Your task to perform on an android device: open app "Google Sheets" Image 0: 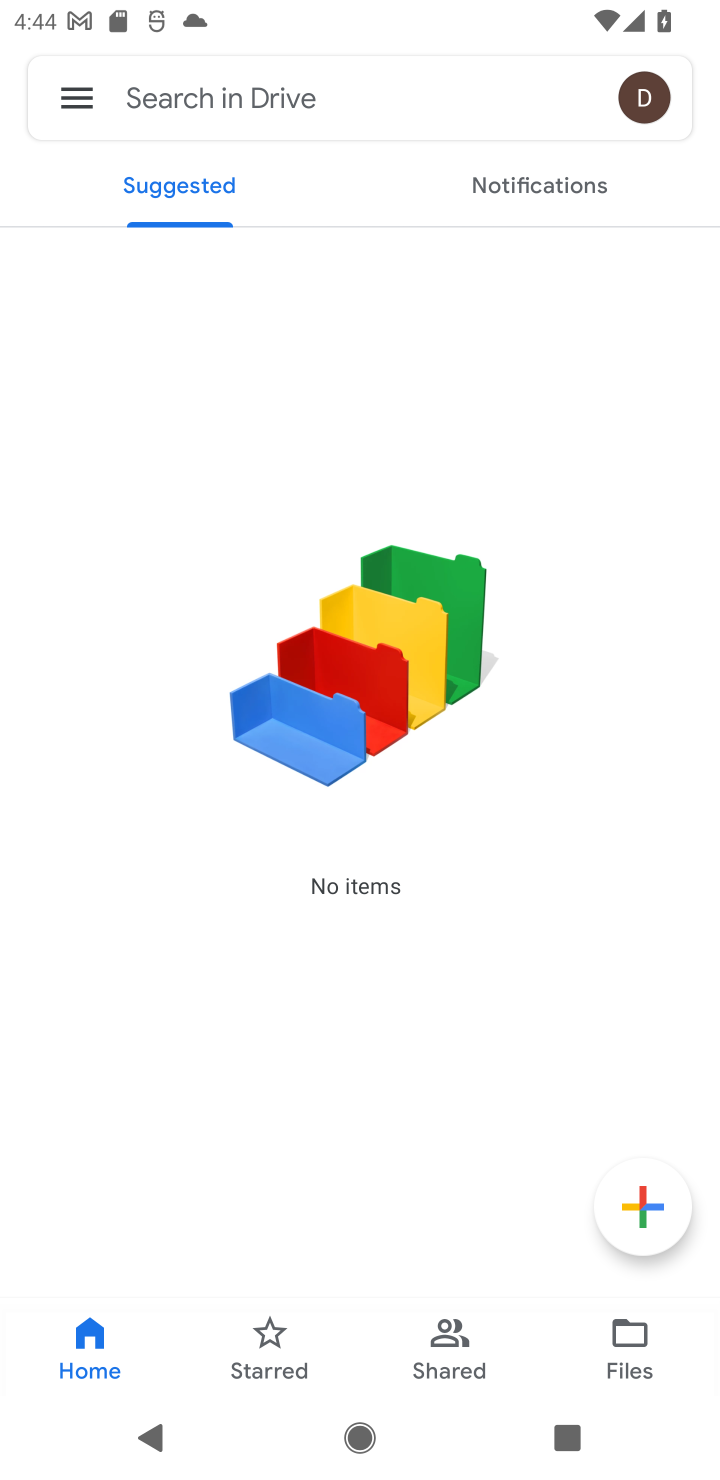
Step 0: press home button
Your task to perform on an android device: open app "Google Sheets" Image 1: 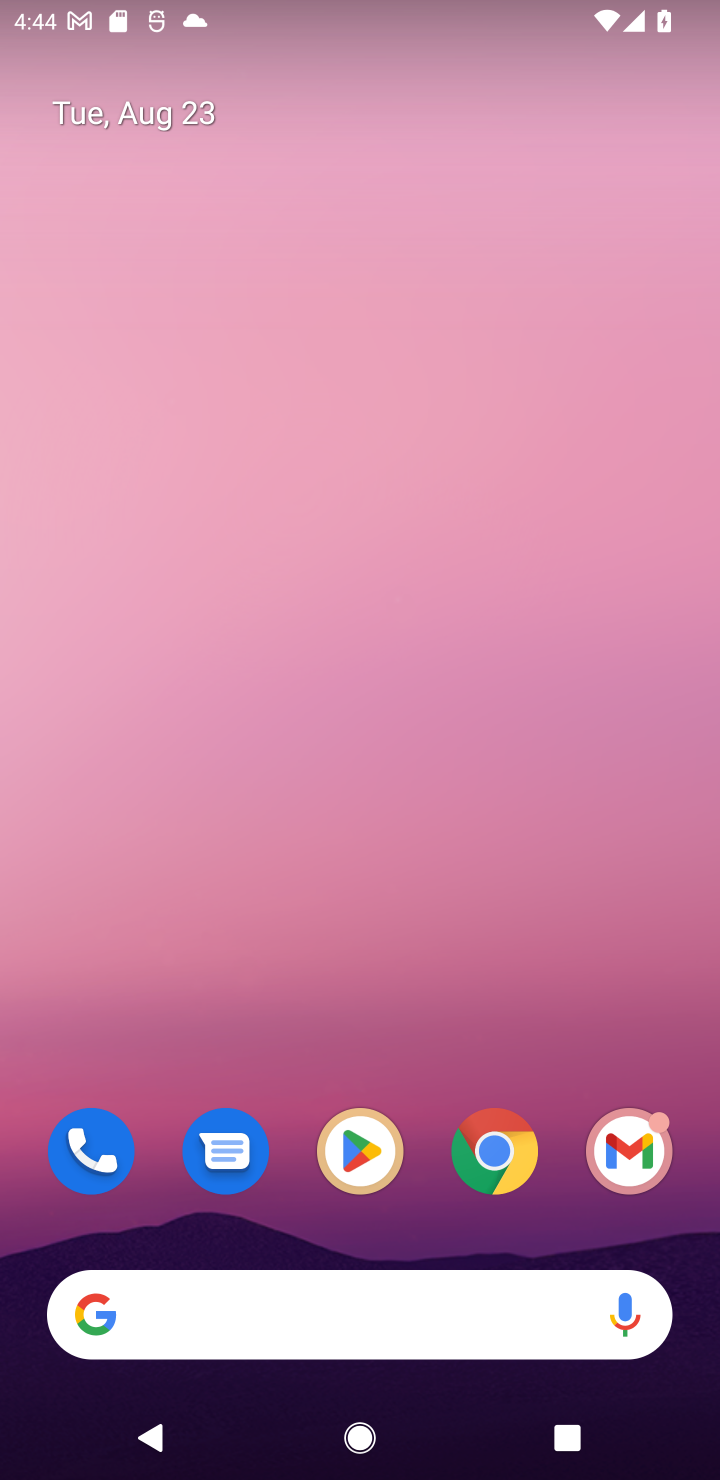
Step 1: click (362, 1156)
Your task to perform on an android device: open app "Google Sheets" Image 2: 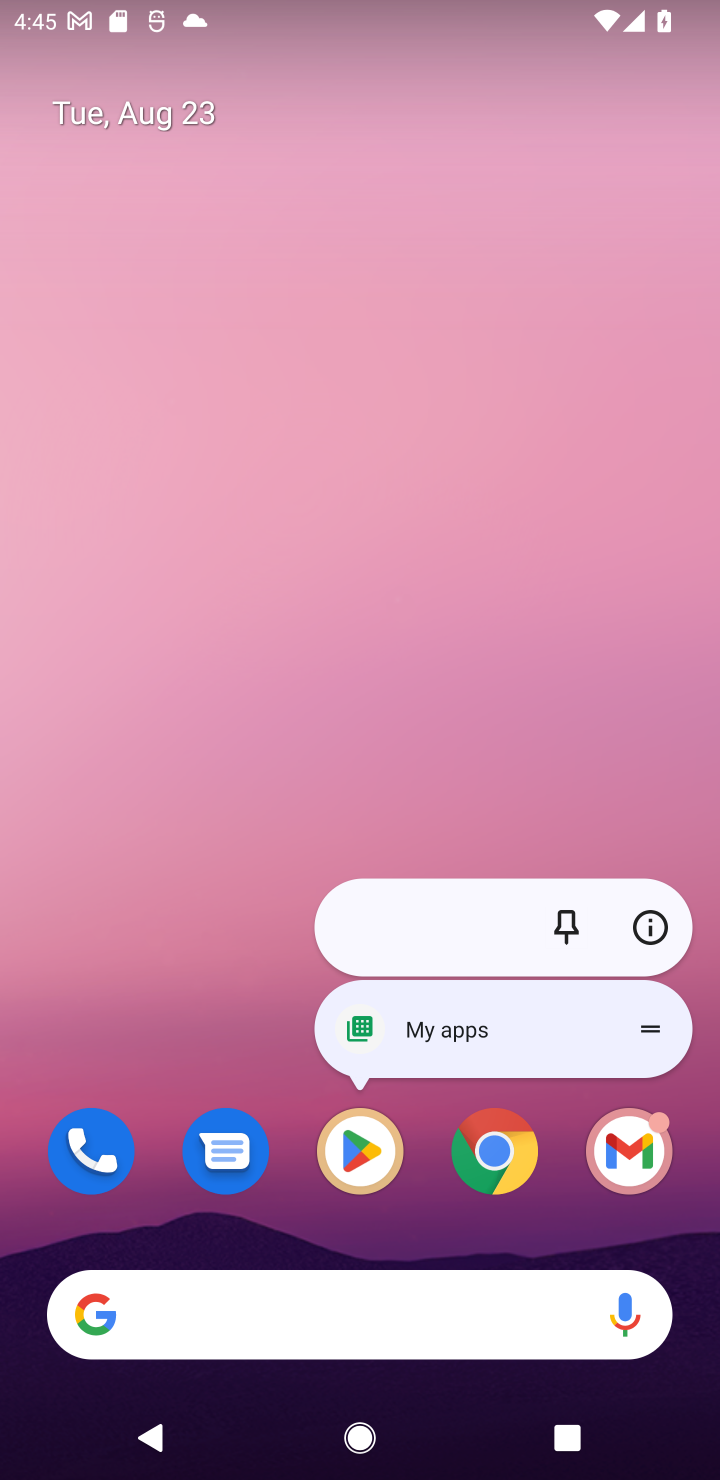
Step 2: click (362, 1163)
Your task to perform on an android device: open app "Google Sheets" Image 3: 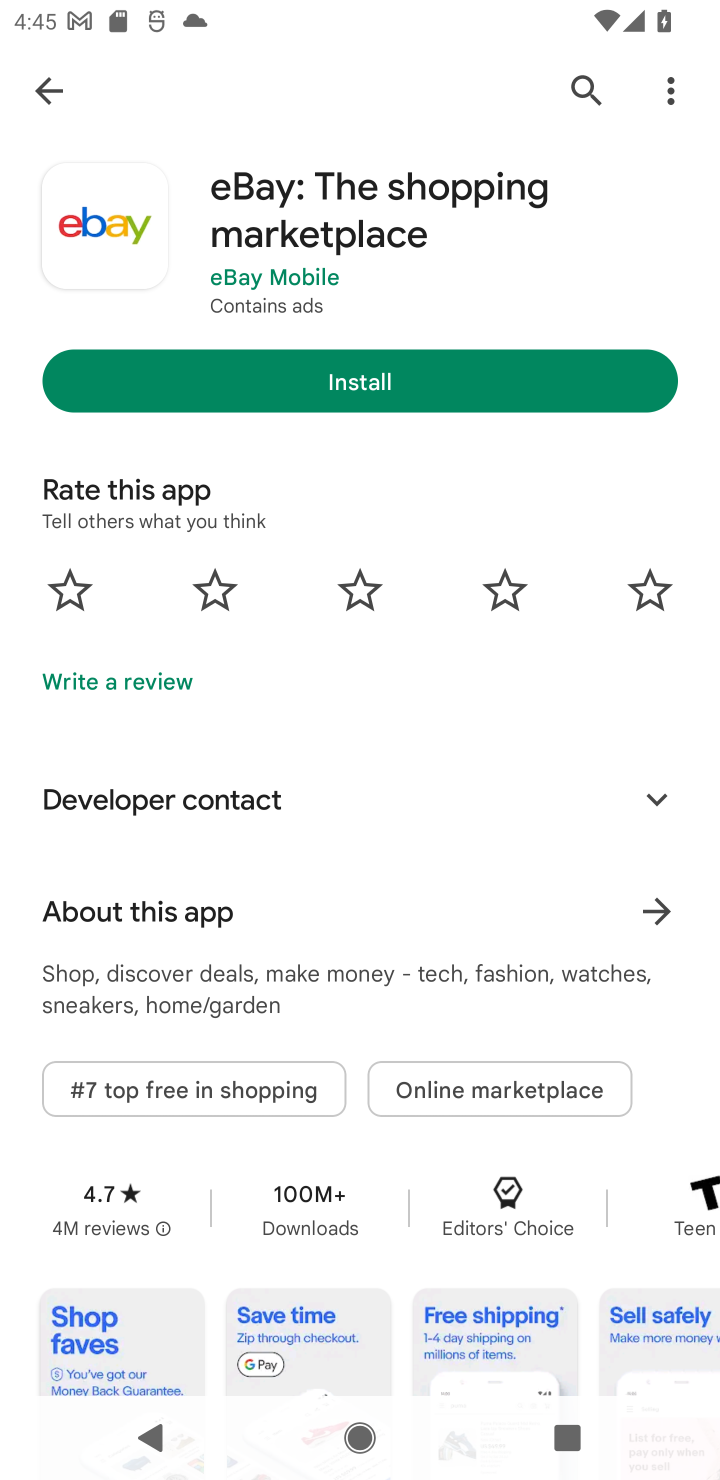
Step 3: click (576, 77)
Your task to perform on an android device: open app "Google Sheets" Image 4: 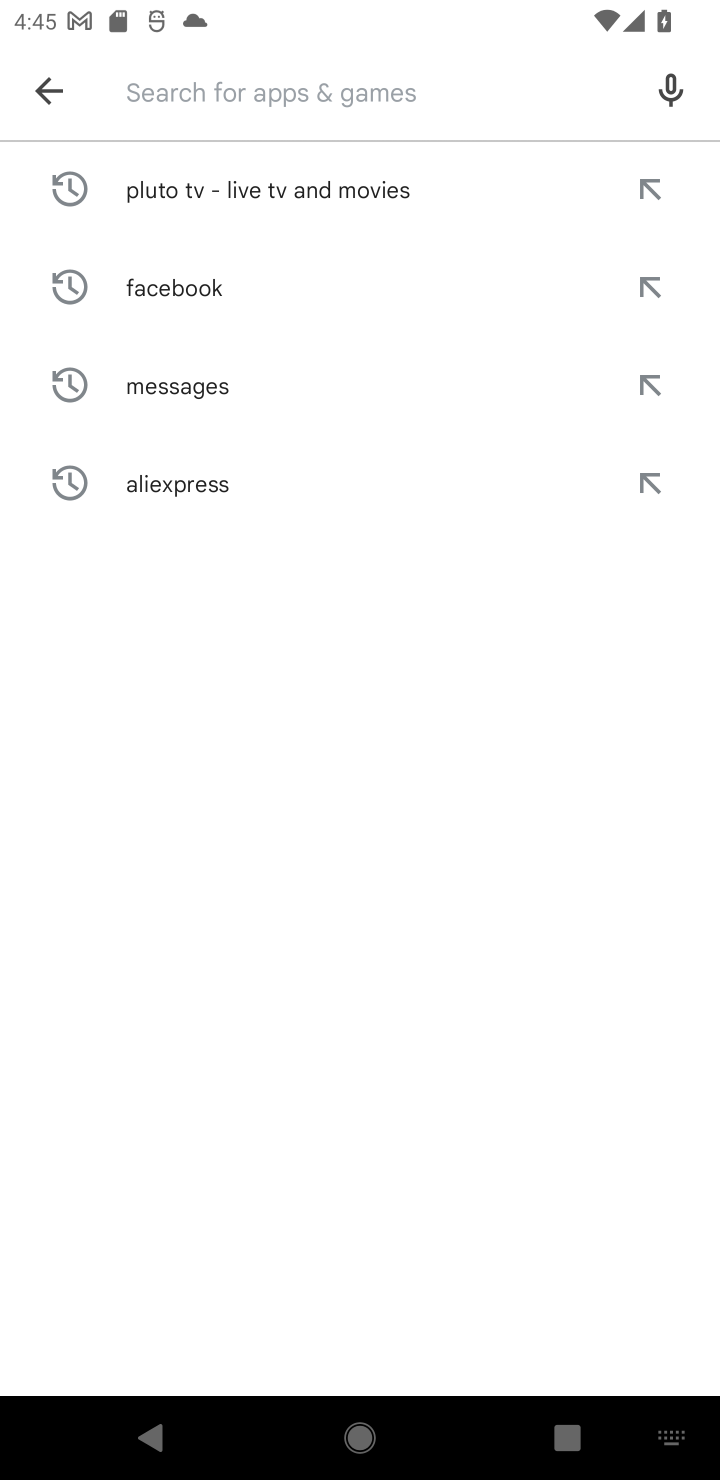
Step 4: type "Google Sheets"
Your task to perform on an android device: open app "Google Sheets" Image 5: 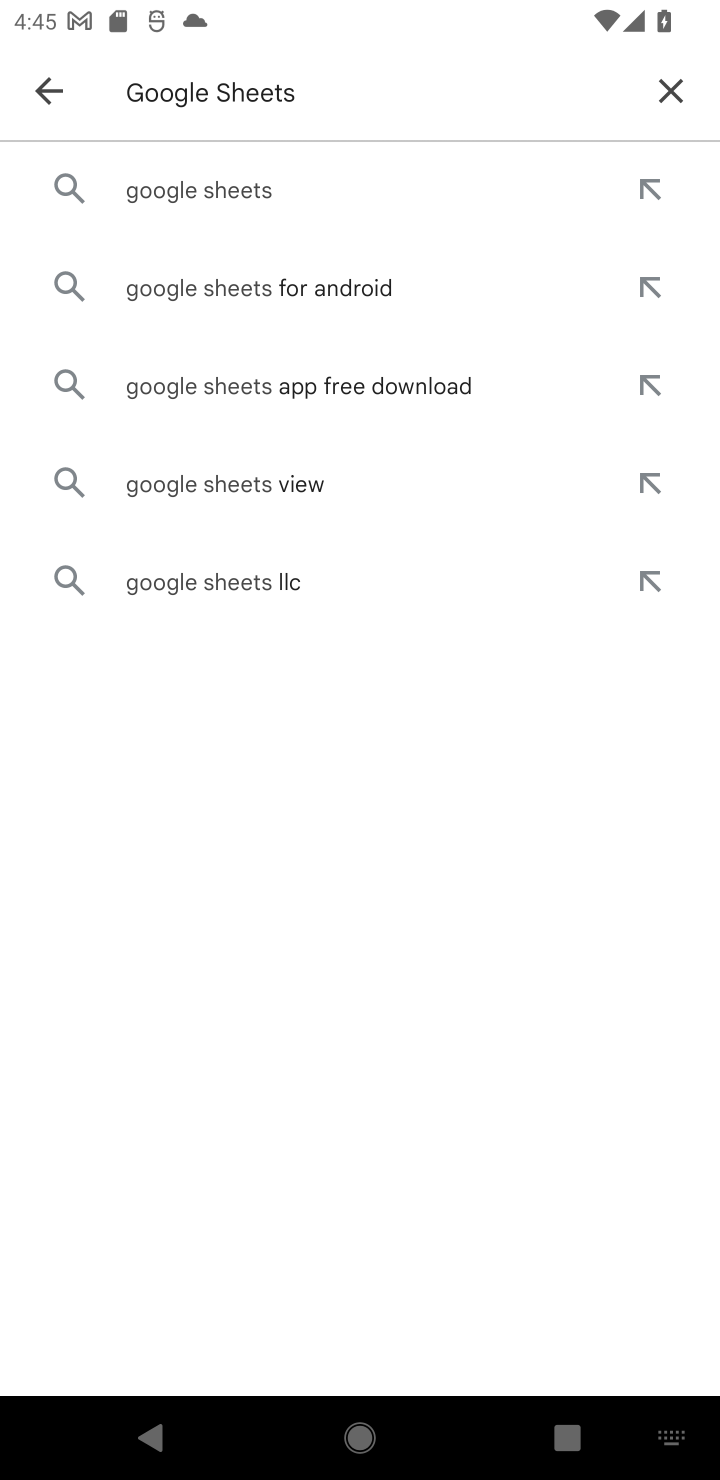
Step 5: click (165, 185)
Your task to perform on an android device: open app "Google Sheets" Image 6: 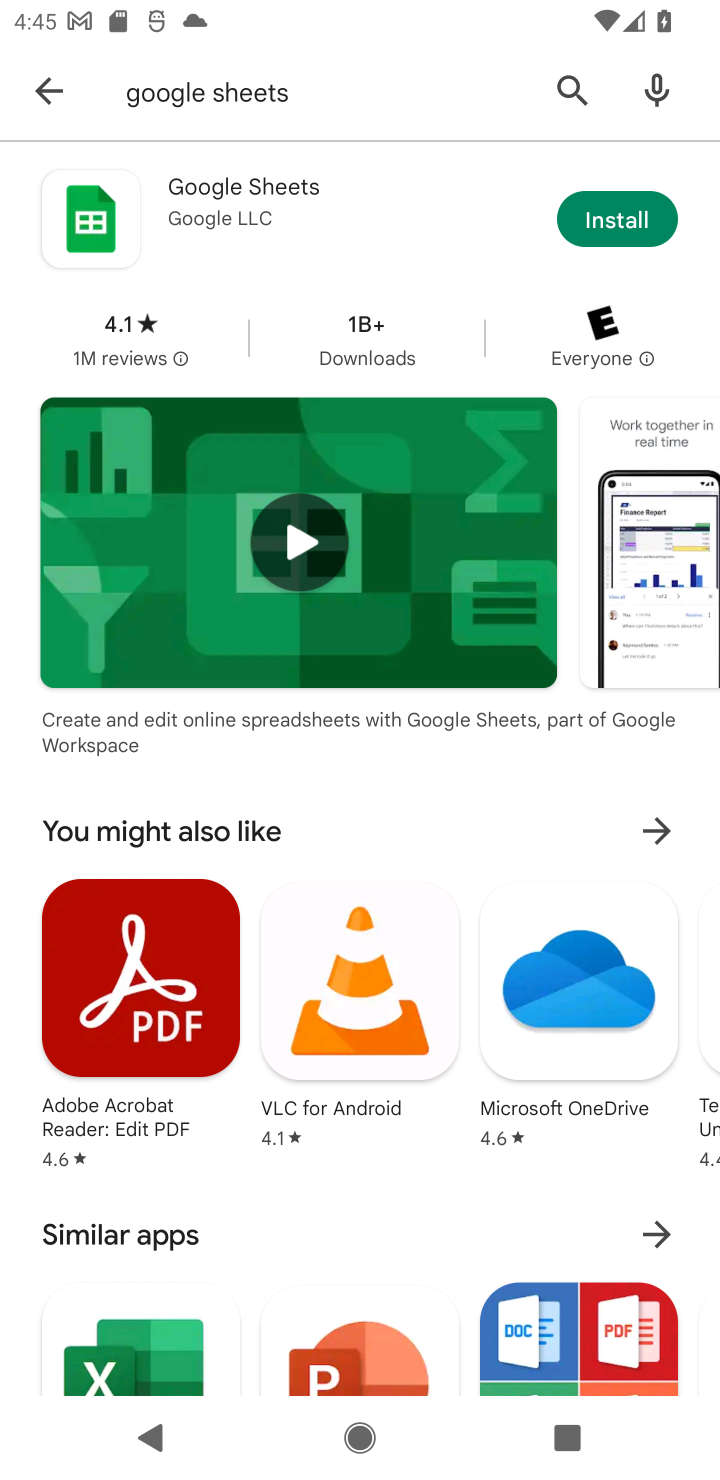
Step 6: task complete